Your task to perform on an android device: Go to calendar. Show me events next week Image 0: 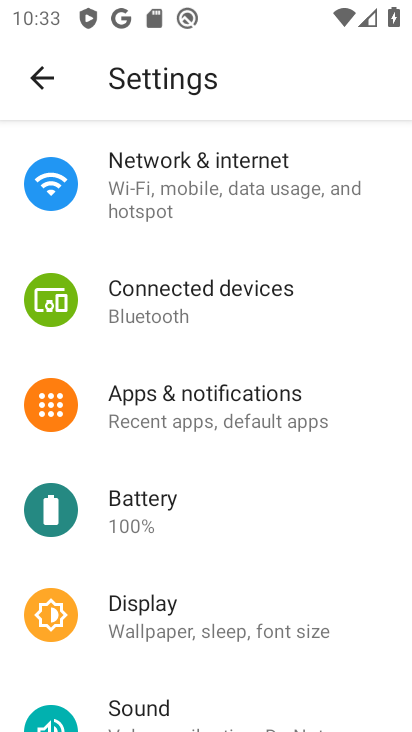
Step 0: click (32, 78)
Your task to perform on an android device: Go to calendar. Show me events next week Image 1: 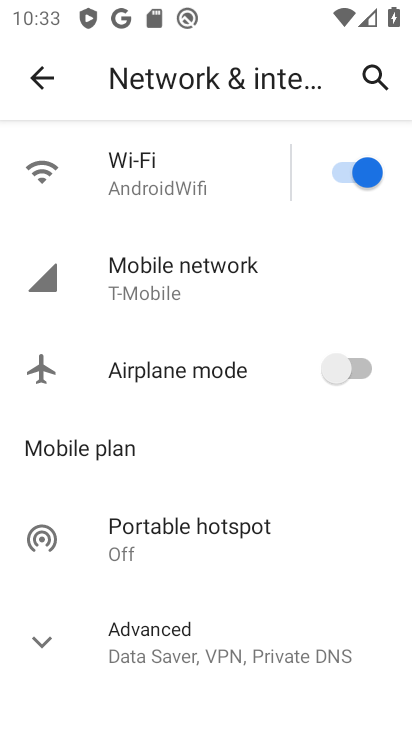
Step 1: press back button
Your task to perform on an android device: Go to calendar. Show me events next week Image 2: 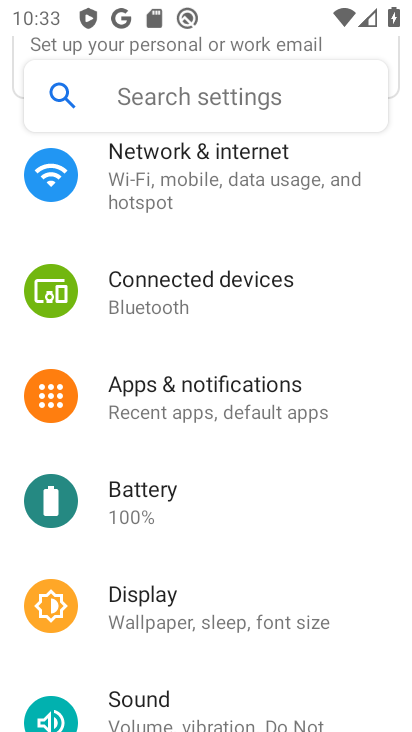
Step 2: press home button
Your task to perform on an android device: Go to calendar. Show me events next week Image 3: 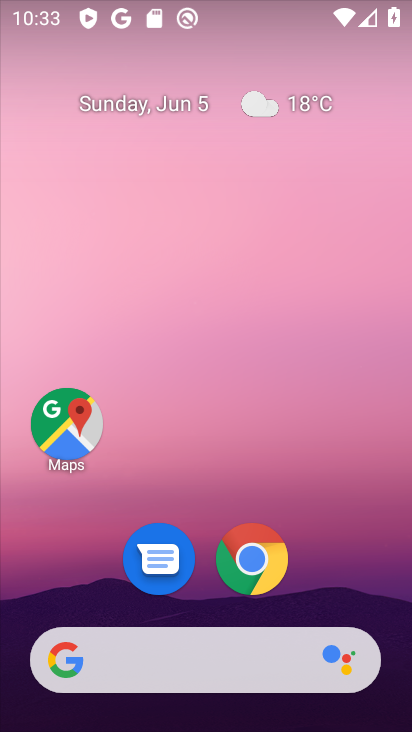
Step 3: drag from (221, 464) to (188, 166)
Your task to perform on an android device: Go to calendar. Show me events next week Image 4: 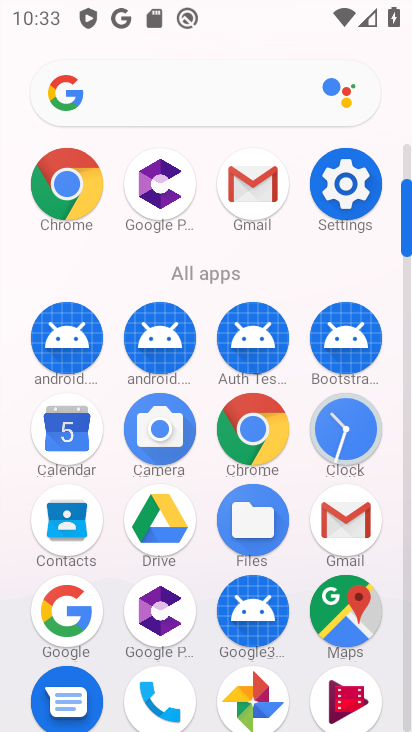
Step 4: click (63, 431)
Your task to perform on an android device: Go to calendar. Show me events next week Image 5: 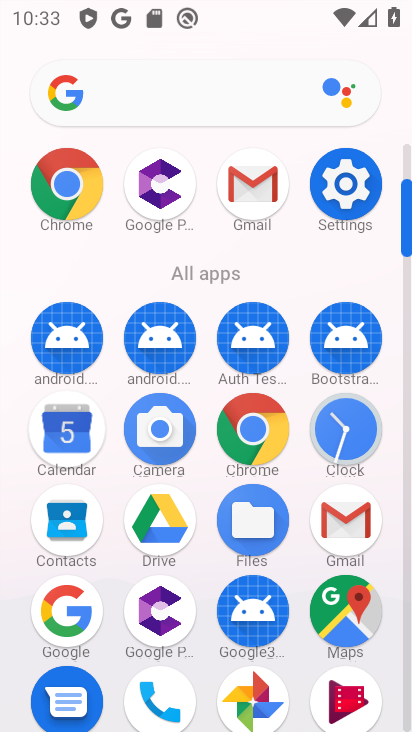
Step 5: click (63, 431)
Your task to perform on an android device: Go to calendar. Show me events next week Image 6: 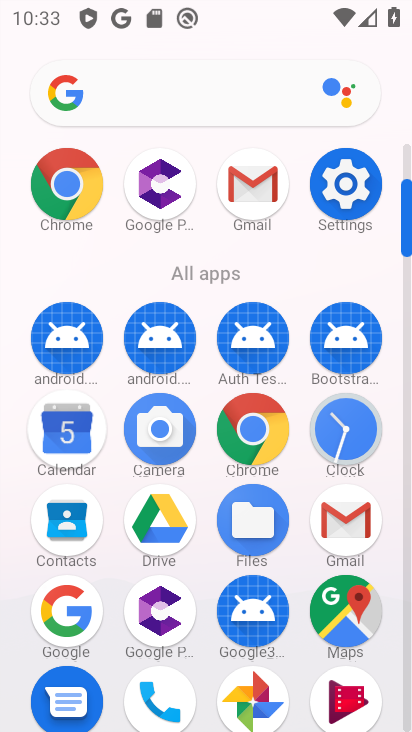
Step 6: click (56, 442)
Your task to perform on an android device: Go to calendar. Show me events next week Image 7: 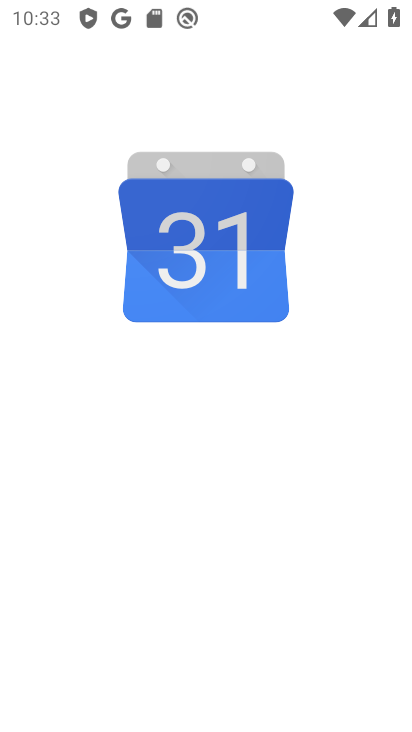
Step 7: click (57, 445)
Your task to perform on an android device: Go to calendar. Show me events next week Image 8: 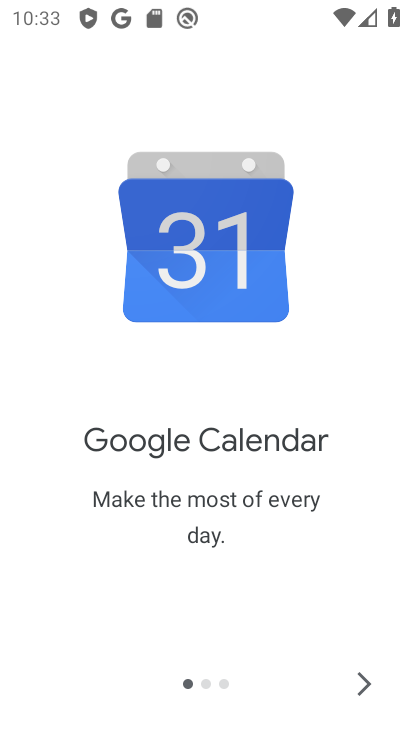
Step 8: click (368, 674)
Your task to perform on an android device: Go to calendar. Show me events next week Image 9: 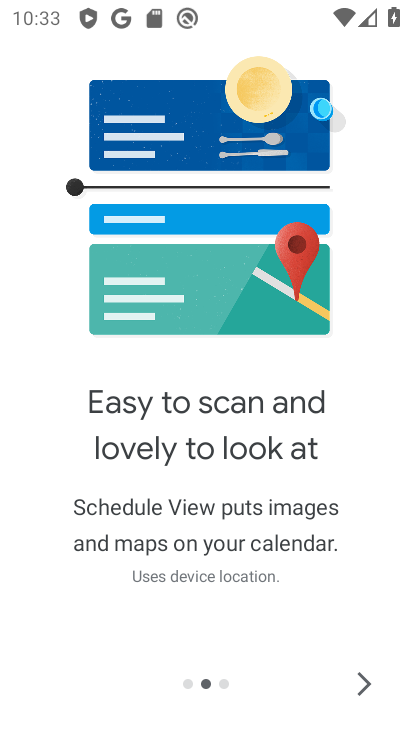
Step 9: click (364, 683)
Your task to perform on an android device: Go to calendar. Show me events next week Image 10: 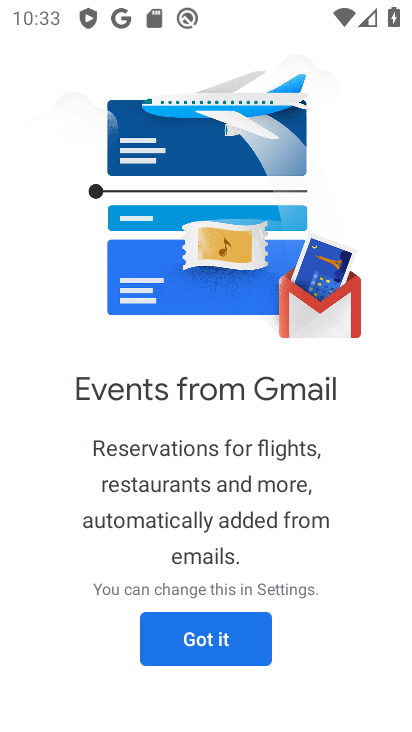
Step 10: click (216, 648)
Your task to perform on an android device: Go to calendar. Show me events next week Image 11: 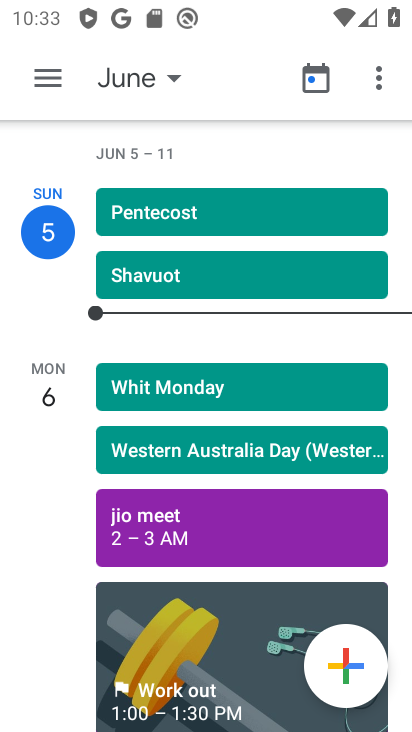
Step 11: click (172, 77)
Your task to perform on an android device: Go to calendar. Show me events next week Image 12: 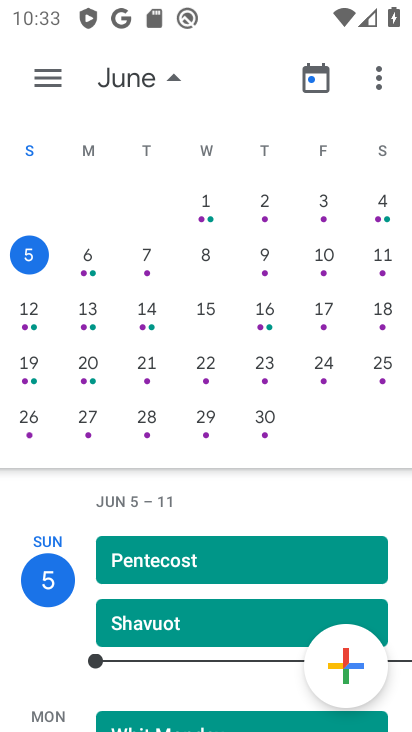
Step 12: click (83, 308)
Your task to perform on an android device: Go to calendar. Show me events next week Image 13: 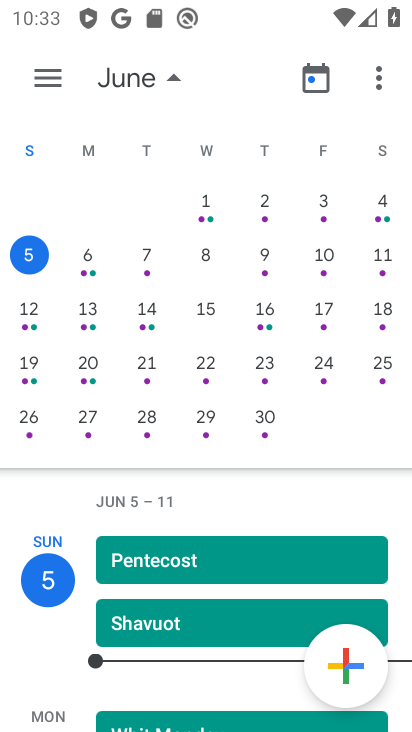
Step 13: click (87, 305)
Your task to perform on an android device: Go to calendar. Show me events next week Image 14: 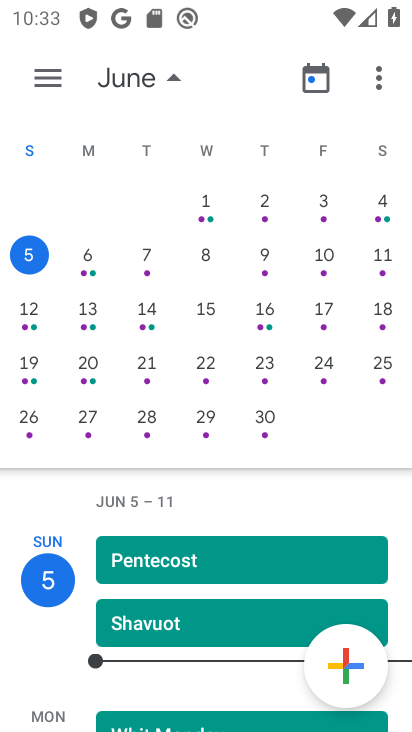
Step 14: click (87, 305)
Your task to perform on an android device: Go to calendar. Show me events next week Image 15: 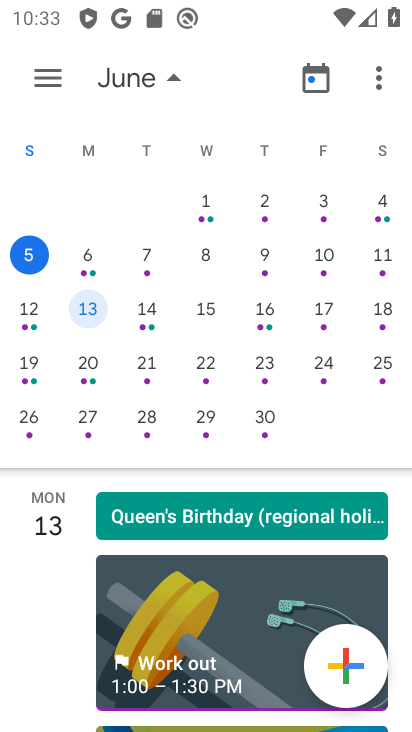
Step 15: drag from (231, 548) to (252, 576)
Your task to perform on an android device: Go to calendar. Show me events next week Image 16: 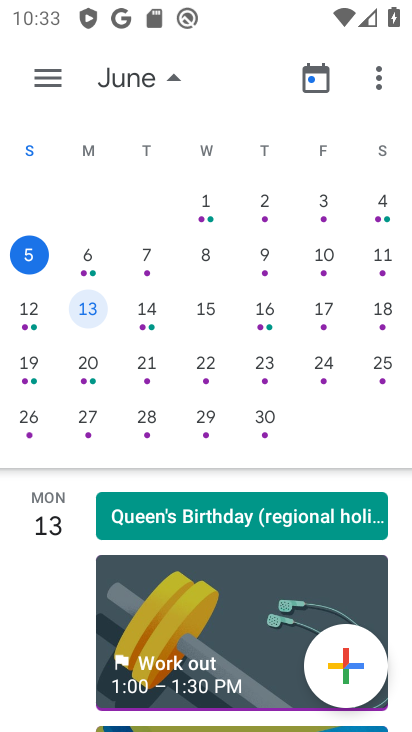
Step 16: click (254, 576)
Your task to perform on an android device: Go to calendar. Show me events next week Image 17: 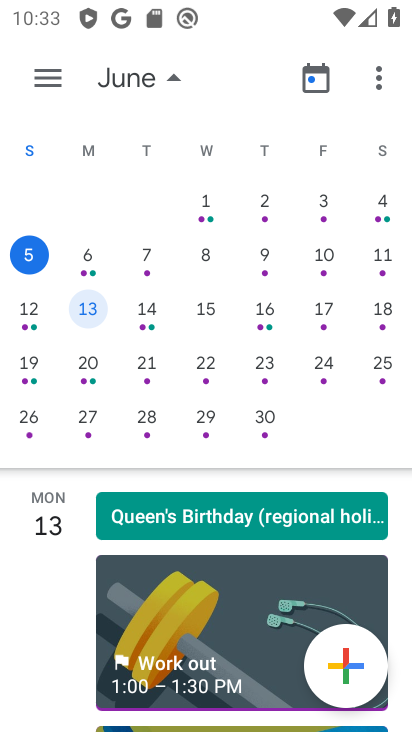
Step 17: click (260, 576)
Your task to perform on an android device: Go to calendar. Show me events next week Image 18: 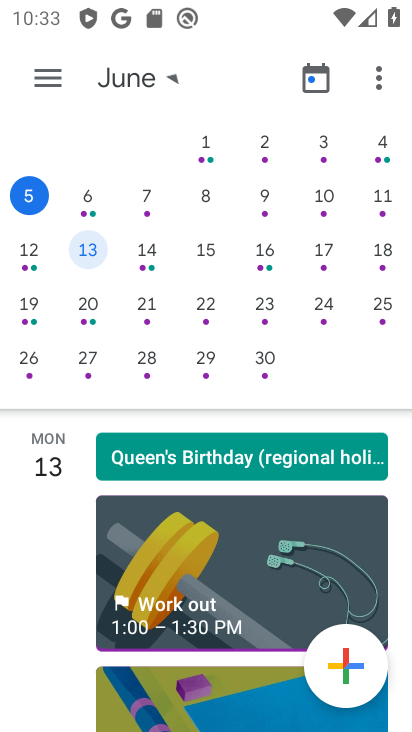
Step 18: task complete